Your task to perform on an android device: check out phone information Image 0: 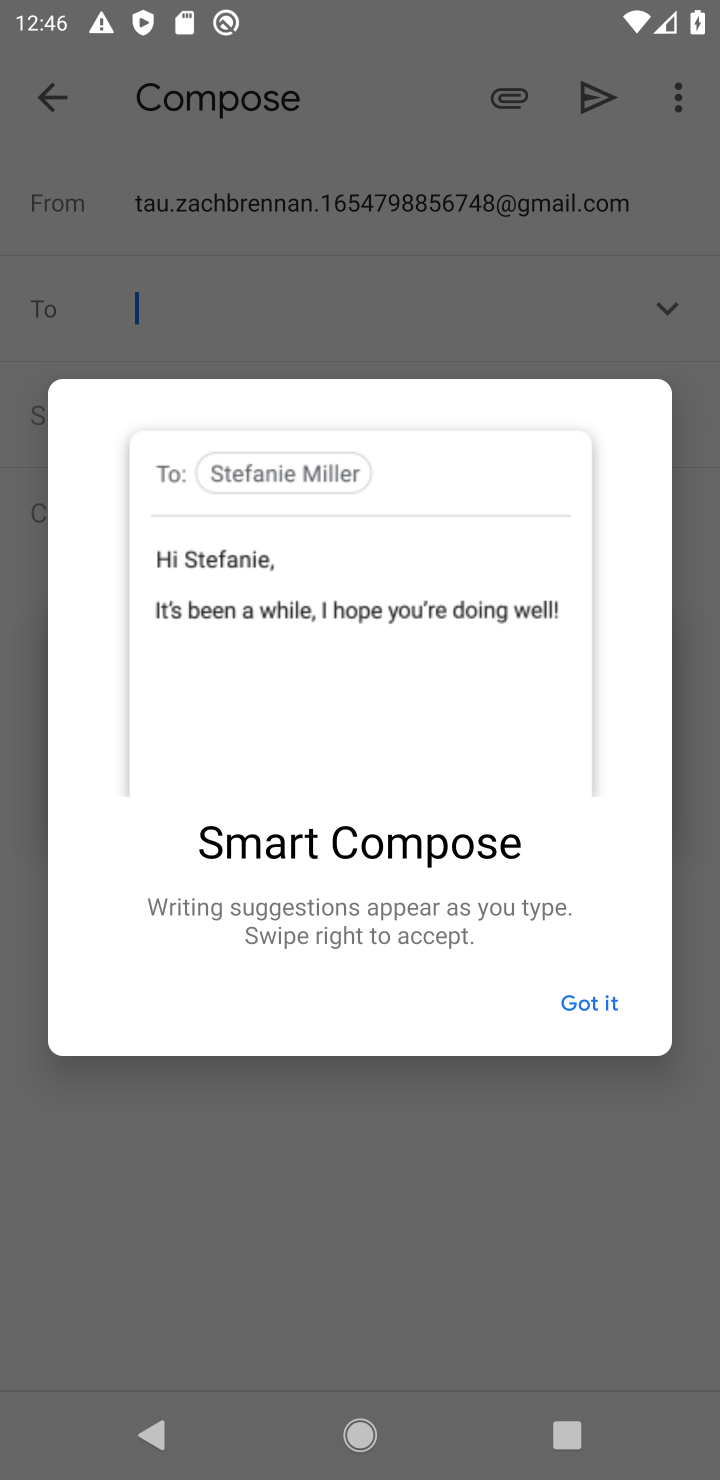
Step 0: press home button
Your task to perform on an android device: check out phone information Image 1: 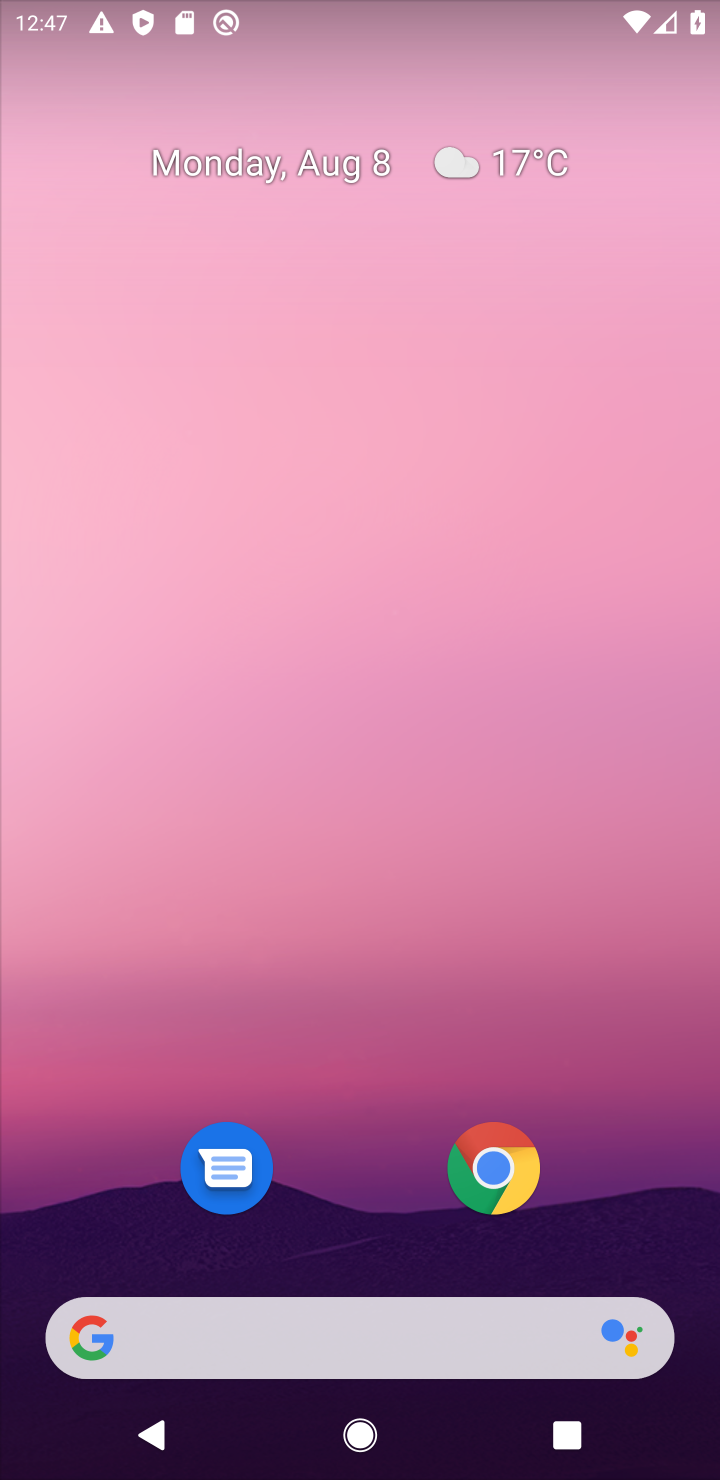
Step 1: drag from (109, 1445) to (515, 220)
Your task to perform on an android device: check out phone information Image 2: 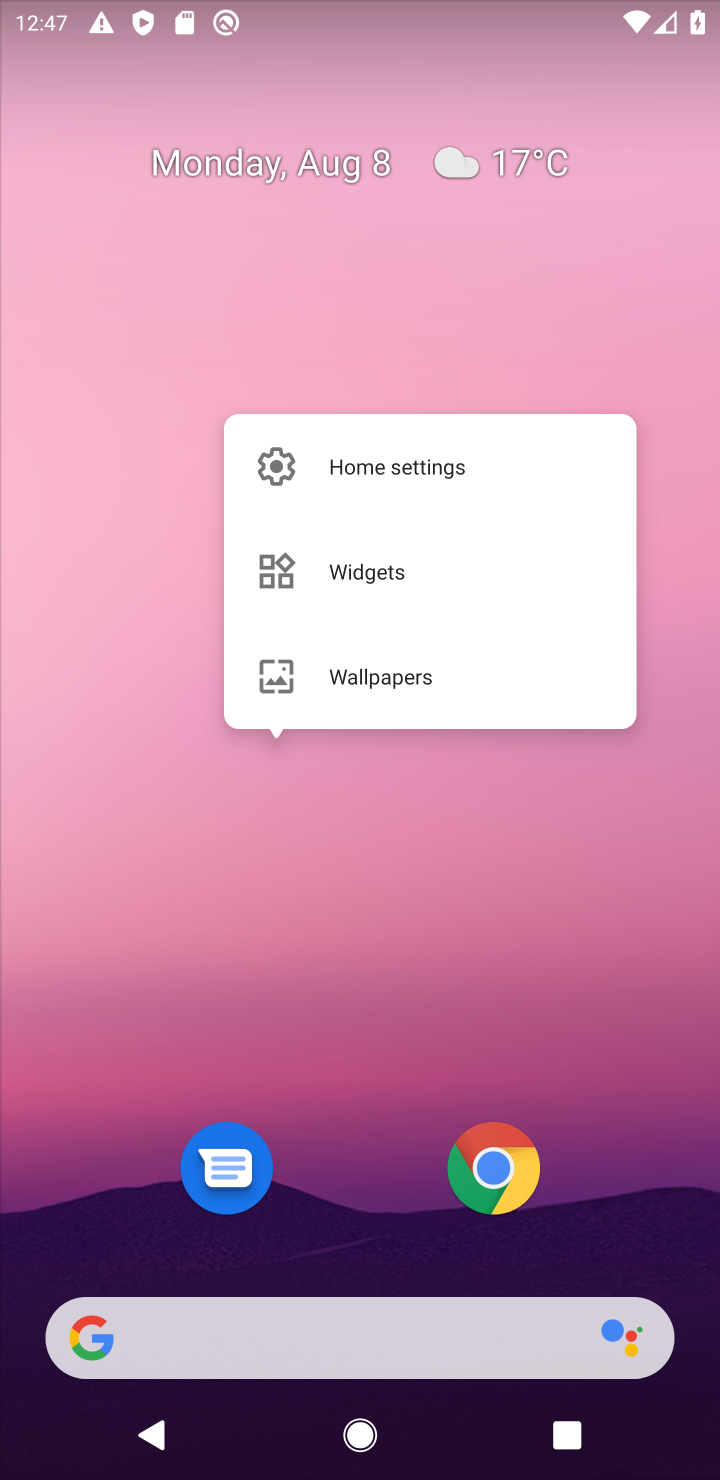
Step 2: drag from (49, 1414) to (453, 233)
Your task to perform on an android device: check out phone information Image 3: 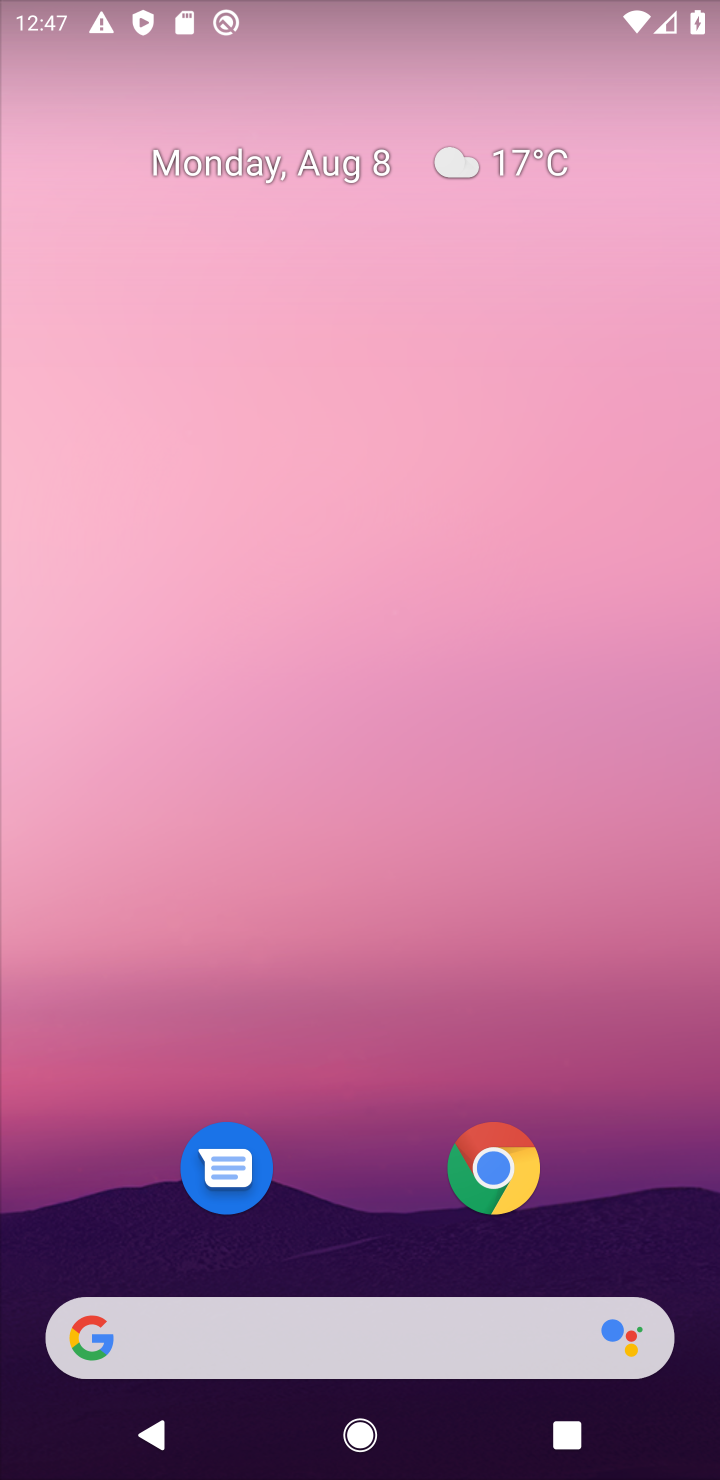
Step 3: drag from (41, 1397) to (368, 562)
Your task to perform on an android device: check out phone information Image 4: 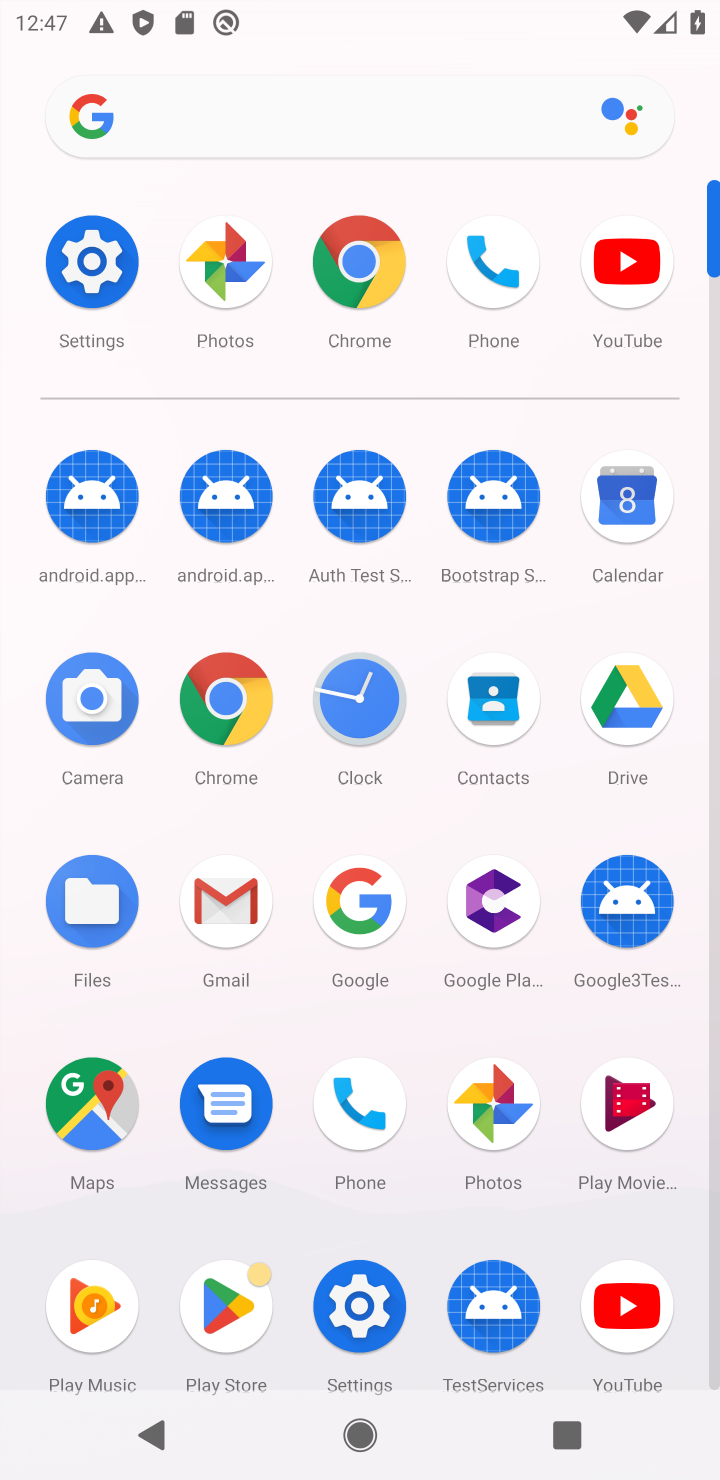
Step 4: click (362, 1098)
Your task to perform on an android device: check out phone information Image 5: 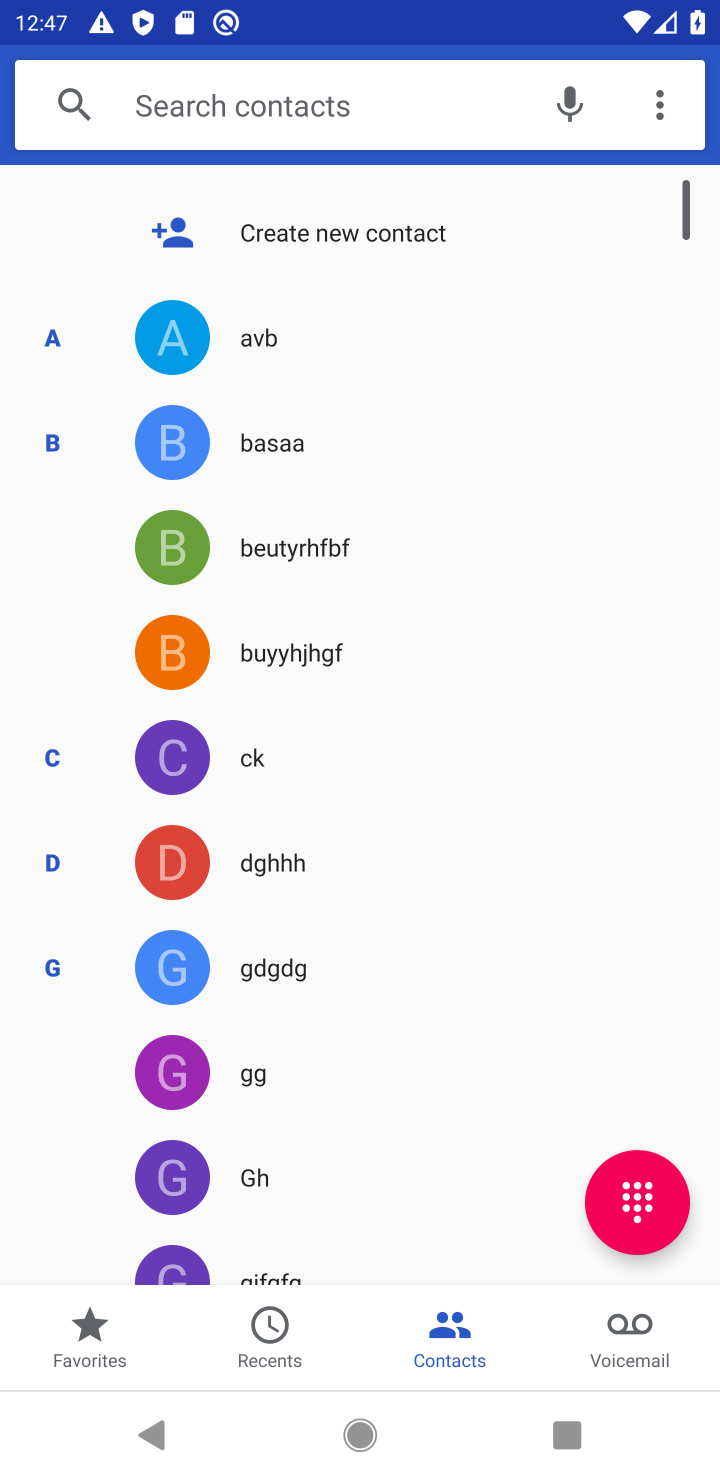
Step 5: task complete